Your task to perform on an android device: turn on sleep mode Image 0: 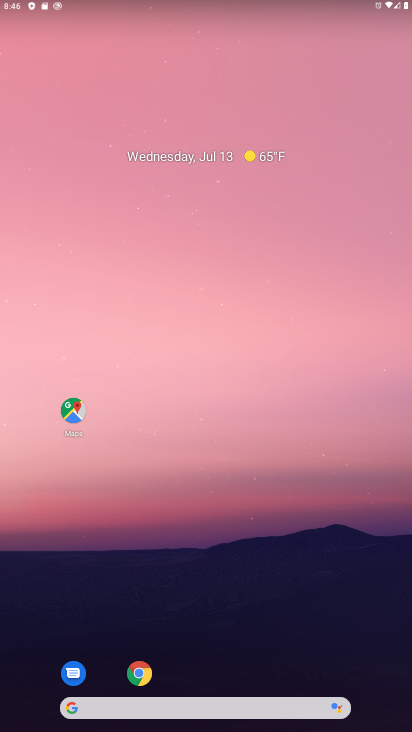
Step 0: drag from (188, 703) to (234, 233)
Your task to perform on an android device: turn on sleep mode Image 1: 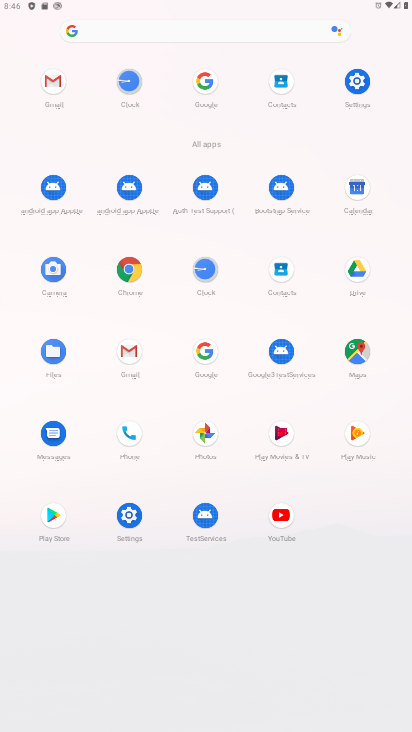
Step 1: click (357, 80)
Your task to perform on an android device: turn on sleep mode Image 2: 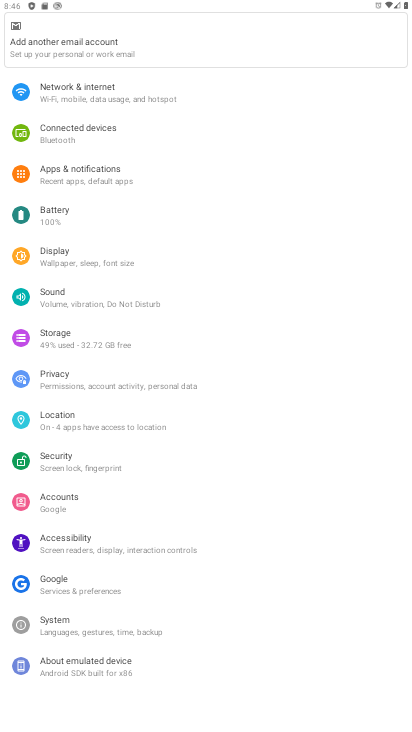
Step 2: click (99, 265)
Your task to perform on an android device: turn on sleep mode Image 3: 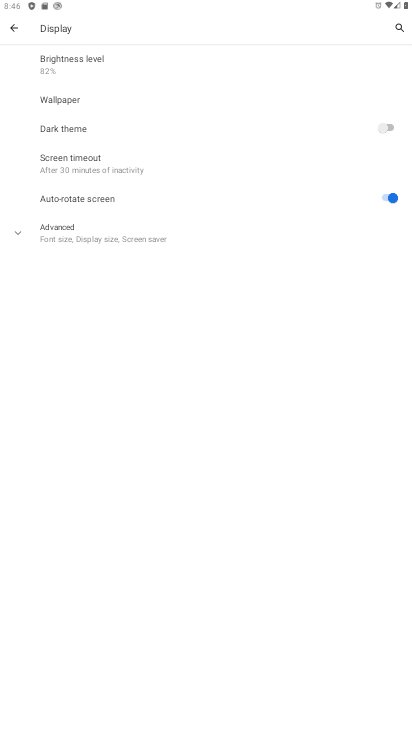
Step 3: click (92, 176)
Your task to perform on an android device: turn on sleep mode Image 4: 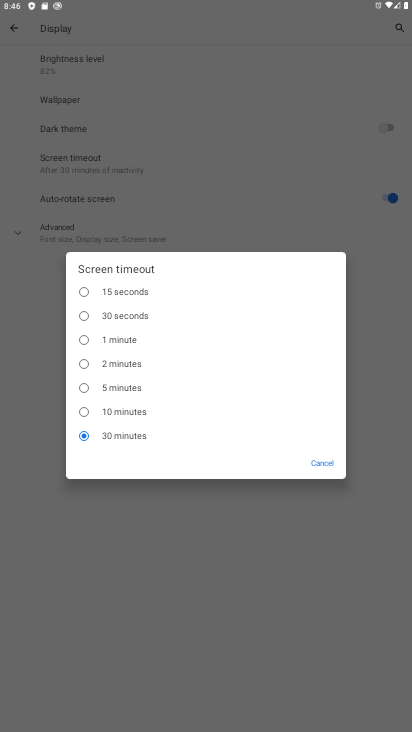
Step 4: click (319, 463)
Your task to perform on an android device: turn on sleep mode Image 5: 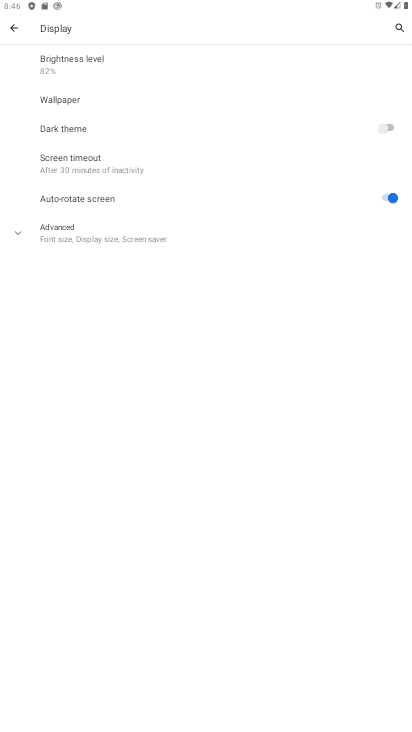
Step 5: task complete